Your task to perform on an android device: turn off wifi Image 0: 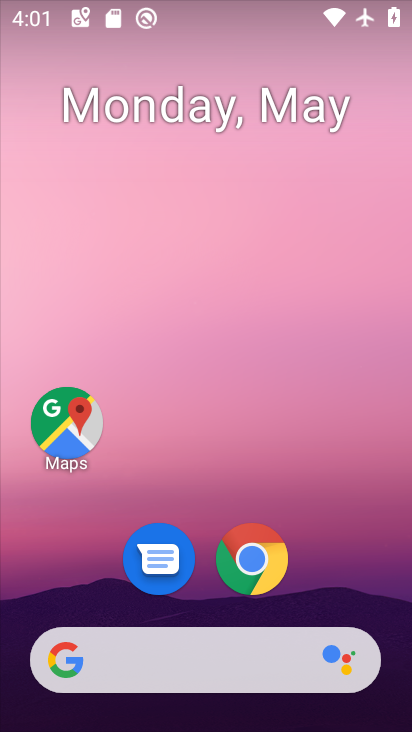
Step 0: drag from (308, 586) to (294, 186)
Your task to perform on an android device: turn off wifi Image 1: 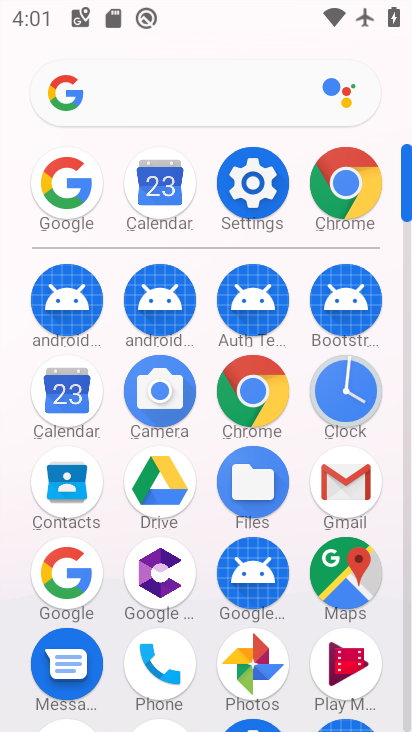
Step 1: click (250, 194)
Your task to perform on an android device: turn off wifi Image 2: 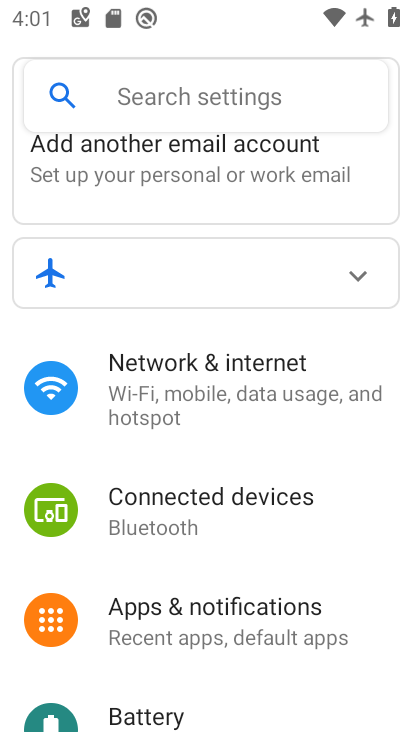
Step 2: click (263, 400)
Your task to perform on an android device: turn off wifi Image 3: 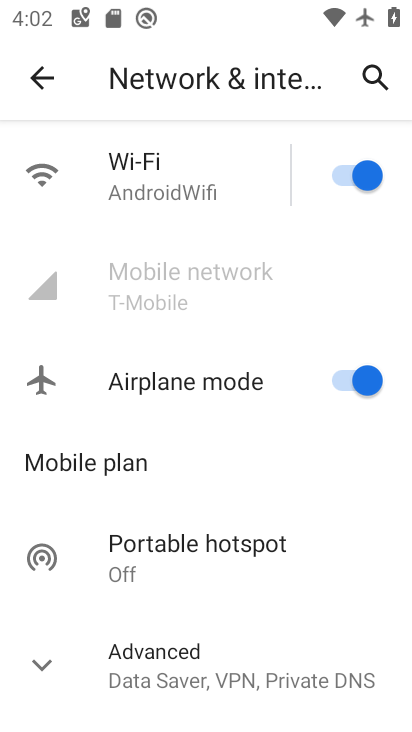
Step 3: click (334, 175)
Your task to perform on an android device: turn off wifi Image 4: 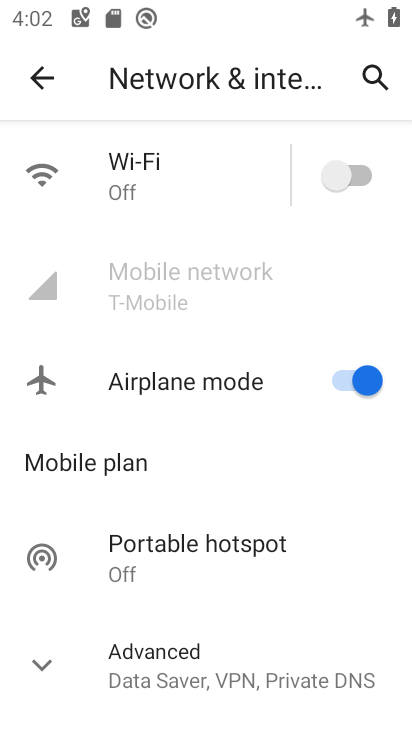
Step 4: task complete